Your task to perform on an android device: Open network settings Image 0: 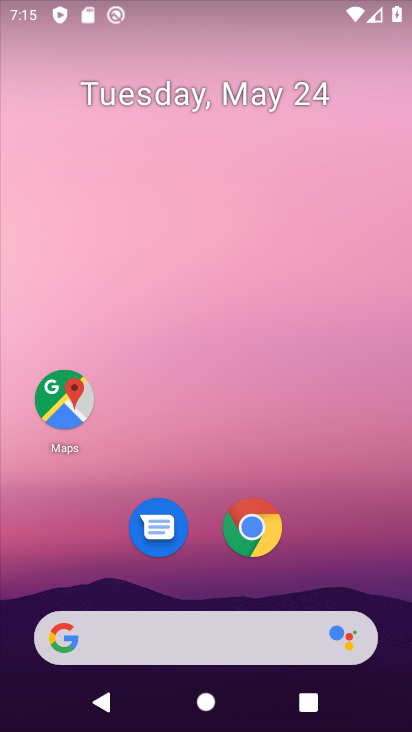
Step 0: drag from (370, 502) to (404, 259)
Your task to perform on an android device: Open network settings Image 1: 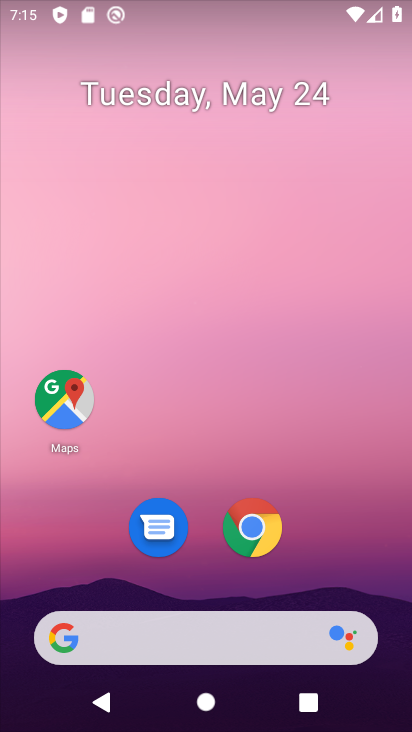
Step 1: drag from (185, 610) to (255, 214)
Your task to perform on an android device: Open network settings Image 2: 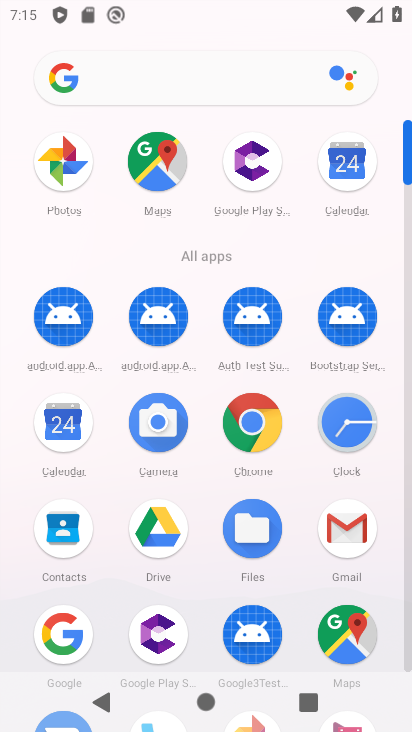
Step 2: drag from (295, 523) to (315, 176)
Your task to perform on an android device: Open network settings Image 3: 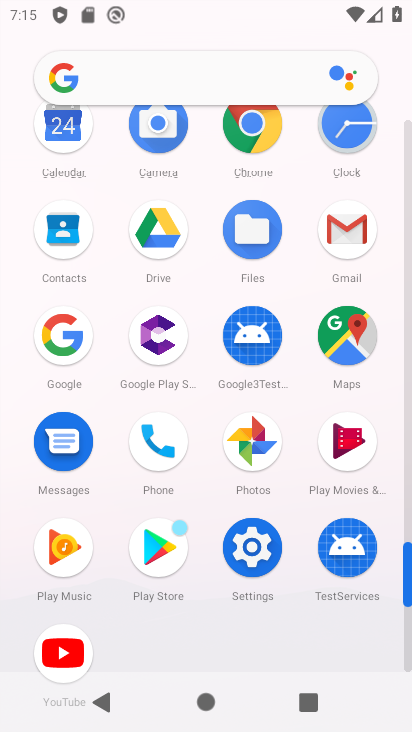
Step 3: click (241, 553)
Your task to perform on an android device: Open network settings Image 4: 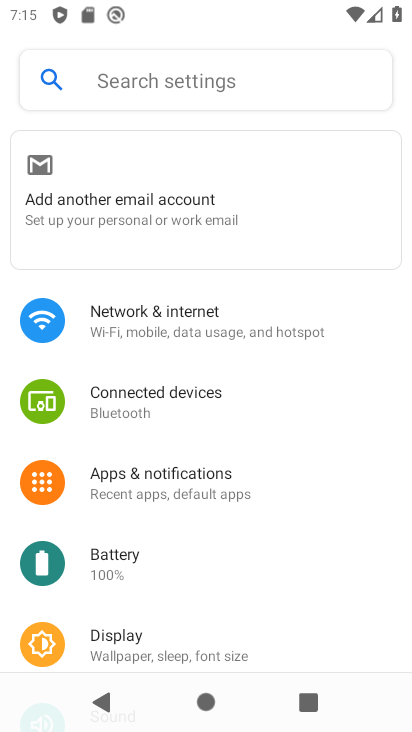
Step 4: click (154, 323)
Your task to perform on an android device: Open network settings Image 5: 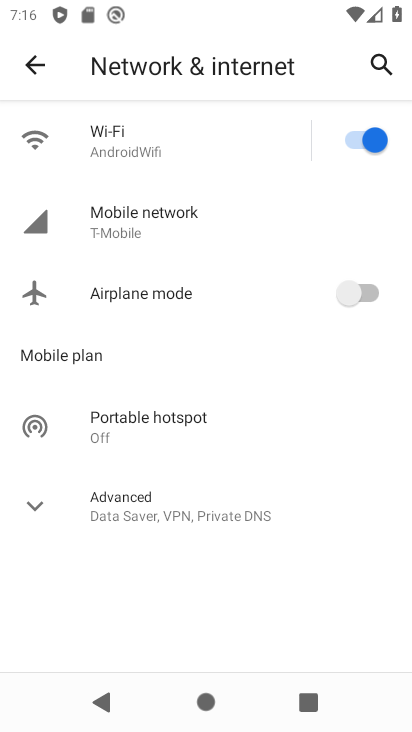
Step 5: task complete